Your task to perform on an android device: Set the phone to "Do not disturb". Image 0: 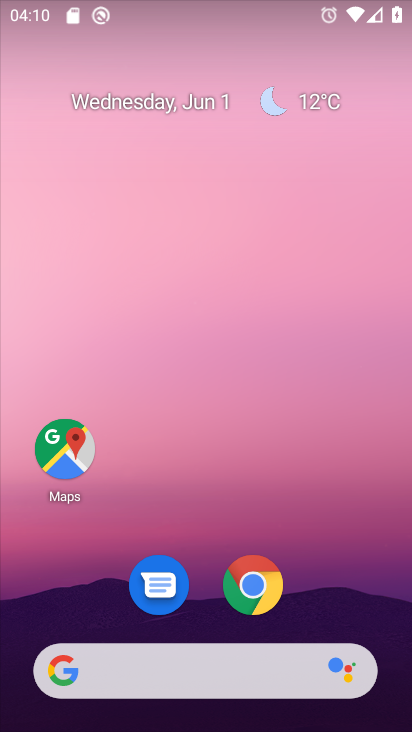
Step 0: drag from (337, 574) to (294, 1)
Your task to perform on an android device: Set the phone to "Do not disturb". Image 1: 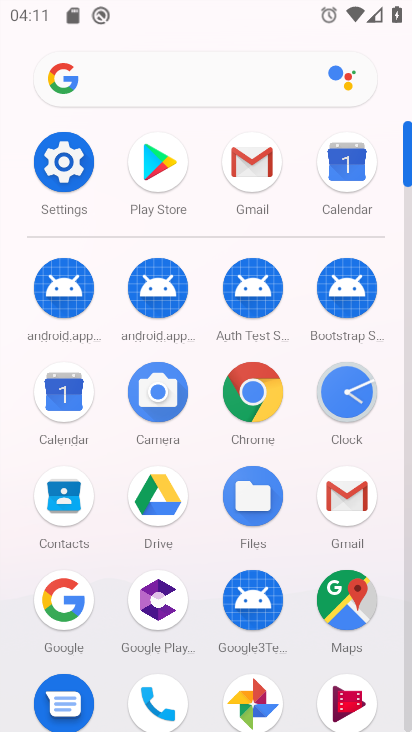
Step 1: click (64, 161)
Your task to perform on an android device: Set the phone to "Do not disturb". Image 2: 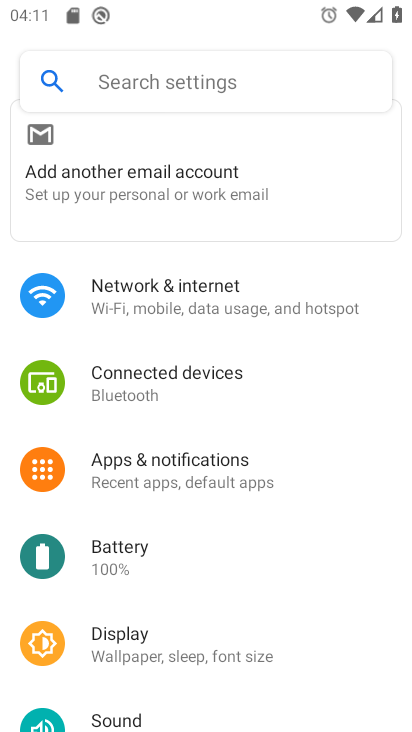
Step 2: drag from (232, 593) to (256, 331)
Your task to perform on an android device: Set the phone to "Do not disturb". Image 3: 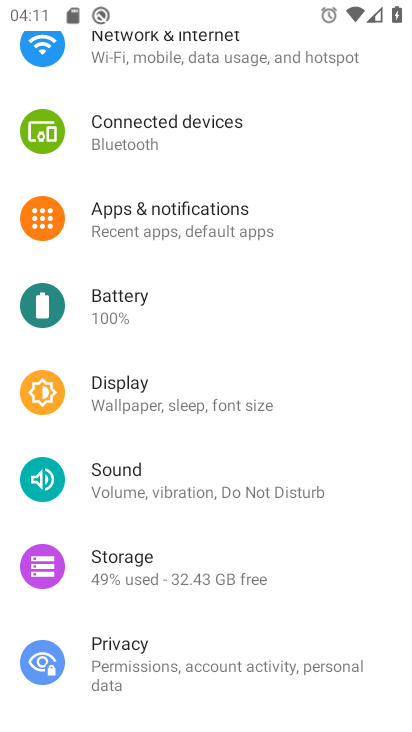
Step 3: click (279, 478)
Your task to perform on an android device: Set the phone to "Do not disturb". Image 4: 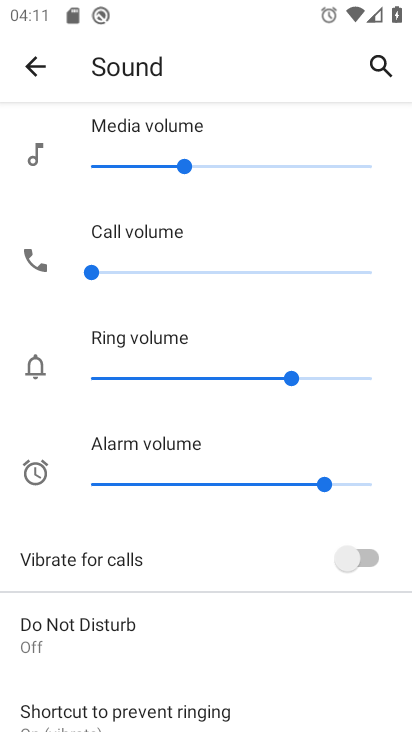
Step 4: click (129, 631)
Your task to perform on an android device: Set the phone to "Do not disturb". Image 5: 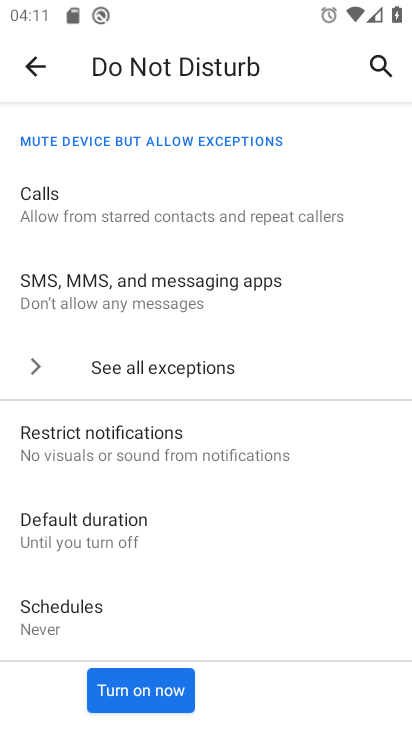
Step 5: click (139, 686)
Your task to perform on an android device: Set the phone to "Do not disturb". Image 6: 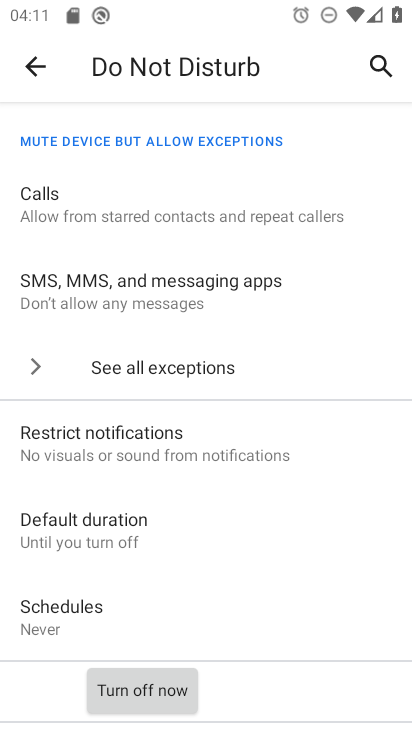
Step 6: task complete